Your task to perform on an android device: Open the phone app and click the voicemail tab. Image 0: 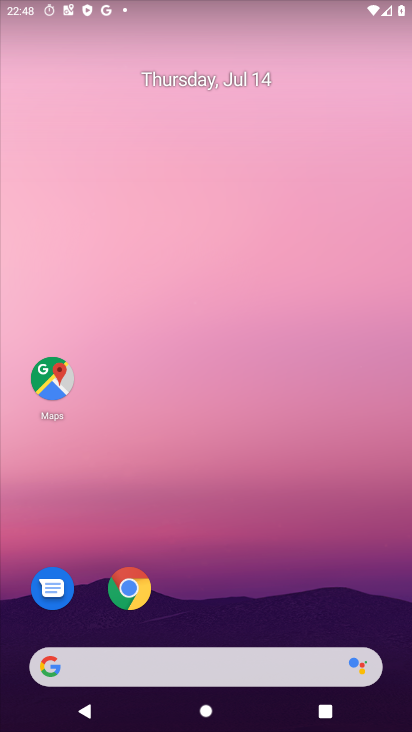
Step 0: drag from (205, 605) to (209, 136)
Your task to perform on an android device: Open the phone app and click the voicemail tab. Image 1: 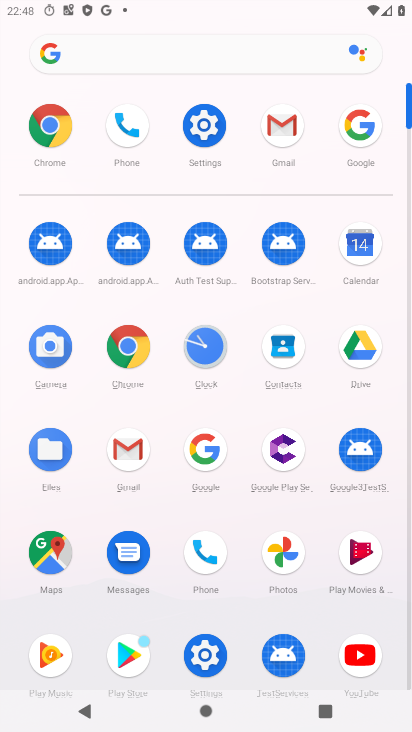
Step 1: click (210, 554)
Your task to perform on an android device: Open the phone app and click the voicemail tab. Image 2: 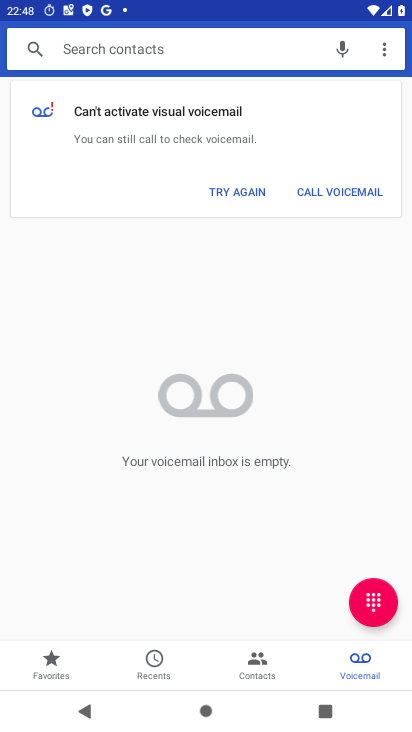
Step 2: task complete